Your task to perform on an android device: Open Chrome and go to settings Image 0: 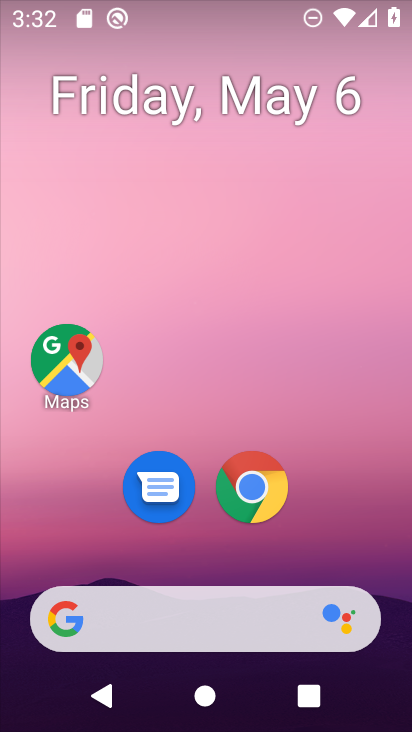
Step 0: click (263, 491)
Your task to perform on an android device: Open Chrome and go to settings Image 1: 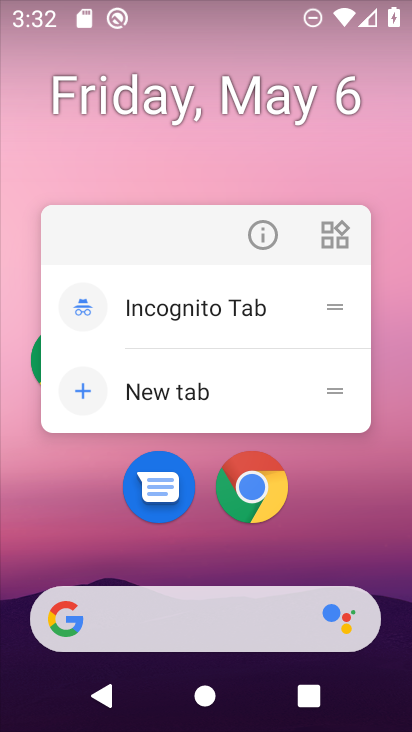
Step 1: click (263, 491)
Your task to perform on an android device: Open Chrome and go to settings Image 2: 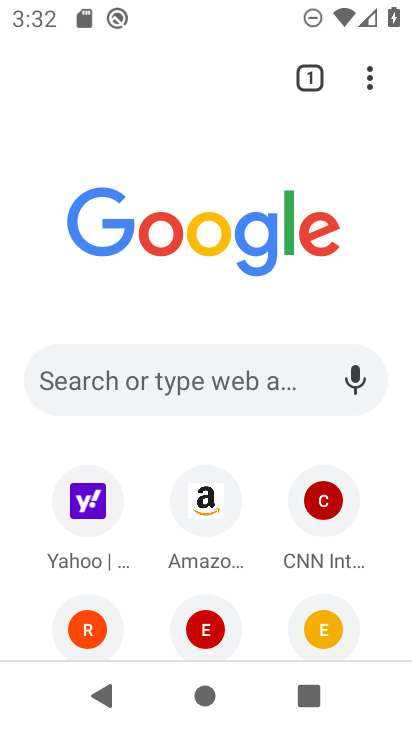
Step 2: click (367, 76)
Your task to perform on an android device: Open Chrome and go to settings Image 3: 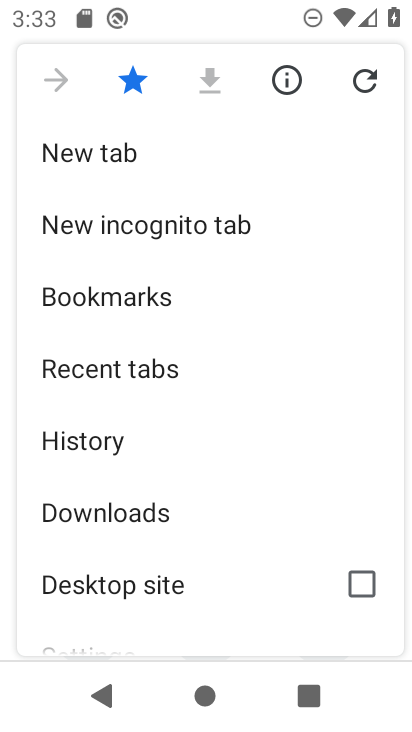
Step 3: drag from (165, 604) to (260, 347)
Your task to perform on an android device: Open Chrome and go to settings Image 4: 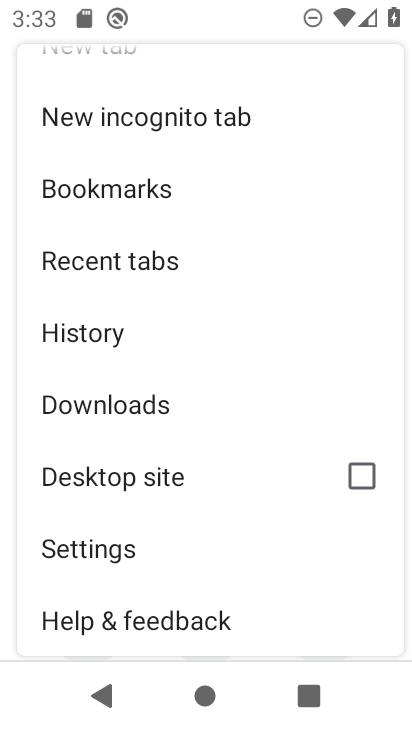
Step 4: click (120, 538)
Your task to perform on an android device: Open Chrome and go to settings Image 5: 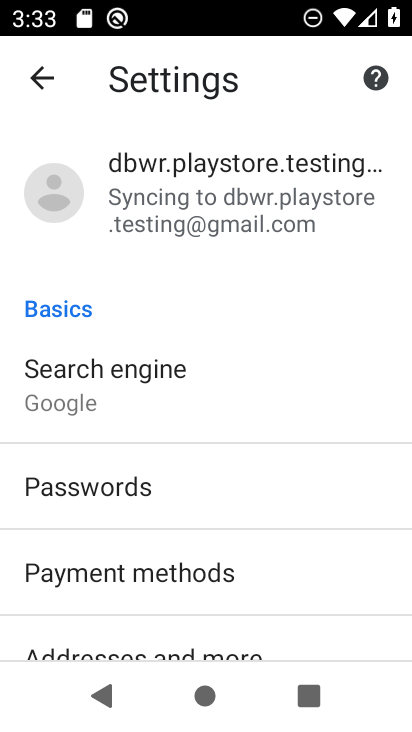
Step 5: task complete